Your task to perform on an android device: Turn off the flashlight Image 0: 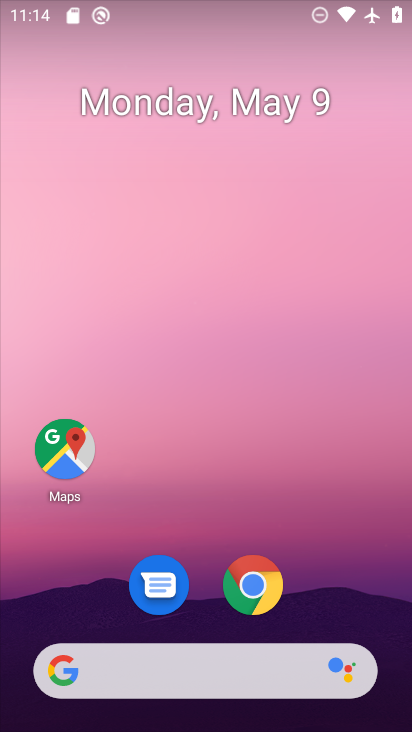
Step 0: drag from (346, 510) to (294, 26)
Your task to perform on an android device: Turn off the flashlight Image 1: 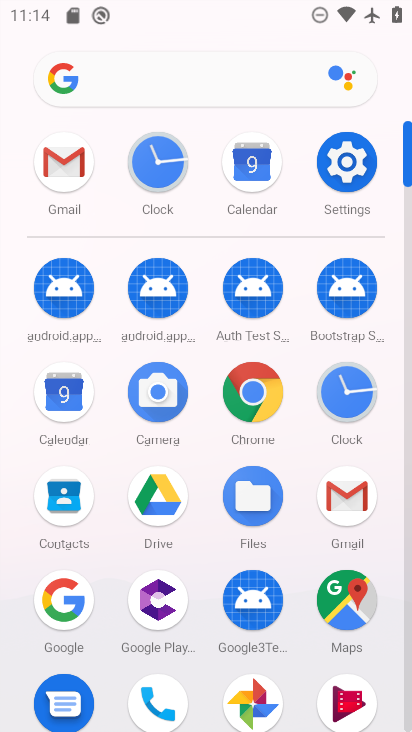
Step 1: click (332, 159)
Your task to perform on an android device: Turn off the flashlight Image 2: 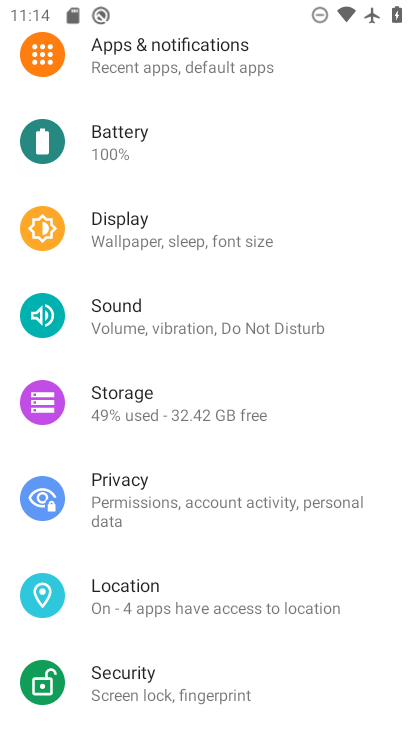
Step 2: drag from (224, 248) to (214, 638)
Your task to perform on an android device: Turn off the flashlight Image 3: 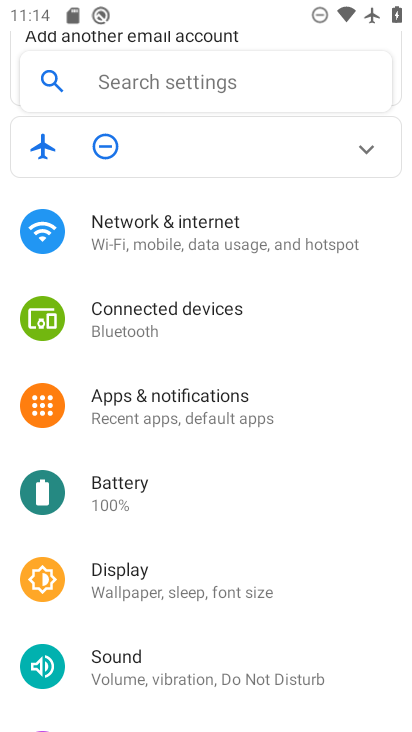
Step 3: drag from (239, 328) to (251, 596)
Your task to perform on an android device: Turn off the flashlight Image 4: 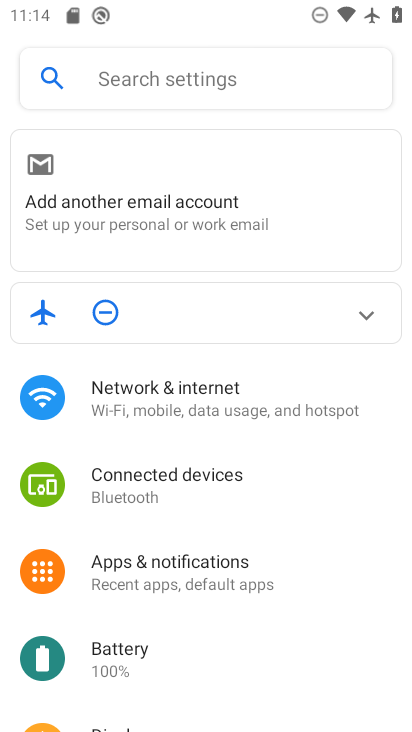
Step 4: click (286, 61)
Your task to perform on an android device: Turn off the flashlight Image 5: 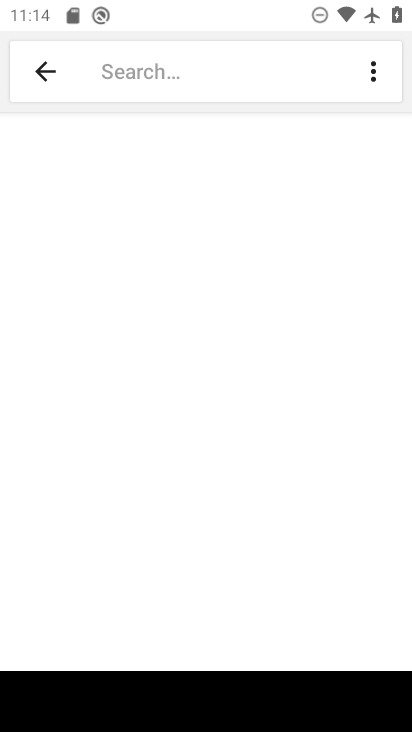
Step 5: type "Flashlight"
Your task to perform on an android device: Turn off the flashlight Image 6: 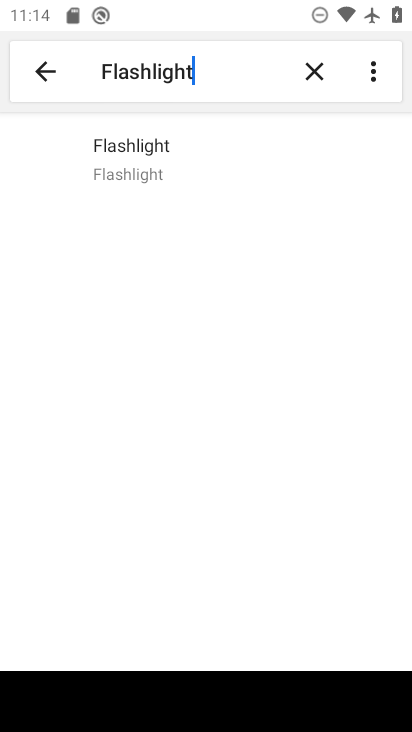
Step 6: click (137, 161)
Your task to perform on an android device: Turn off the flashlight Image 7: 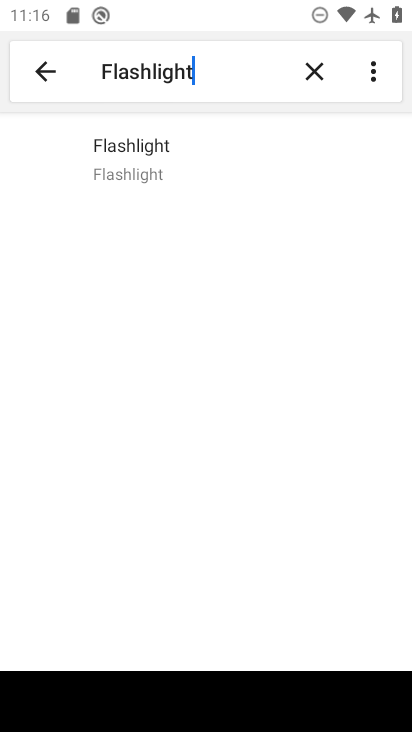
Step 7: task complete